Your task to perform on an android device: clear history in the chrome app Image 0: 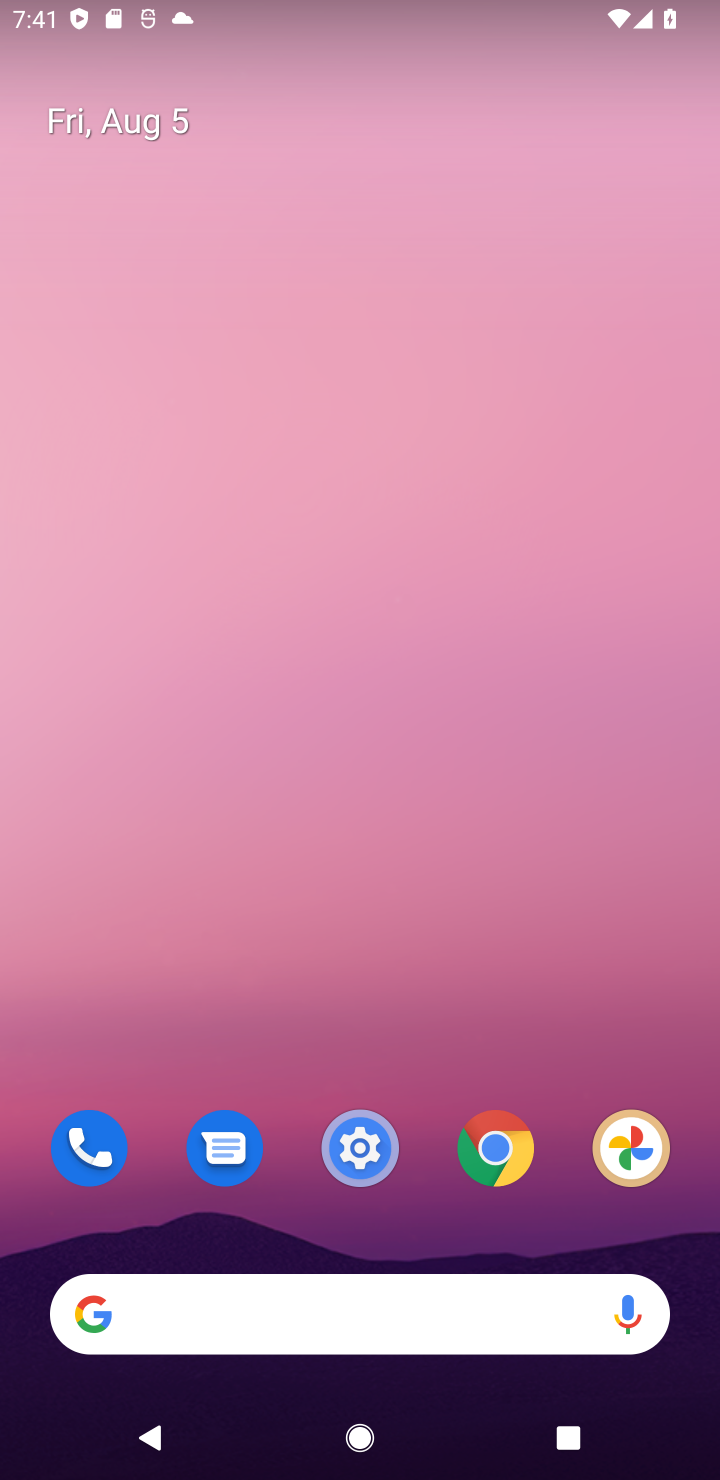
Step 0: click (534, 1146)
Your task to perform on an android device: clear history in the chrome app Image 1: 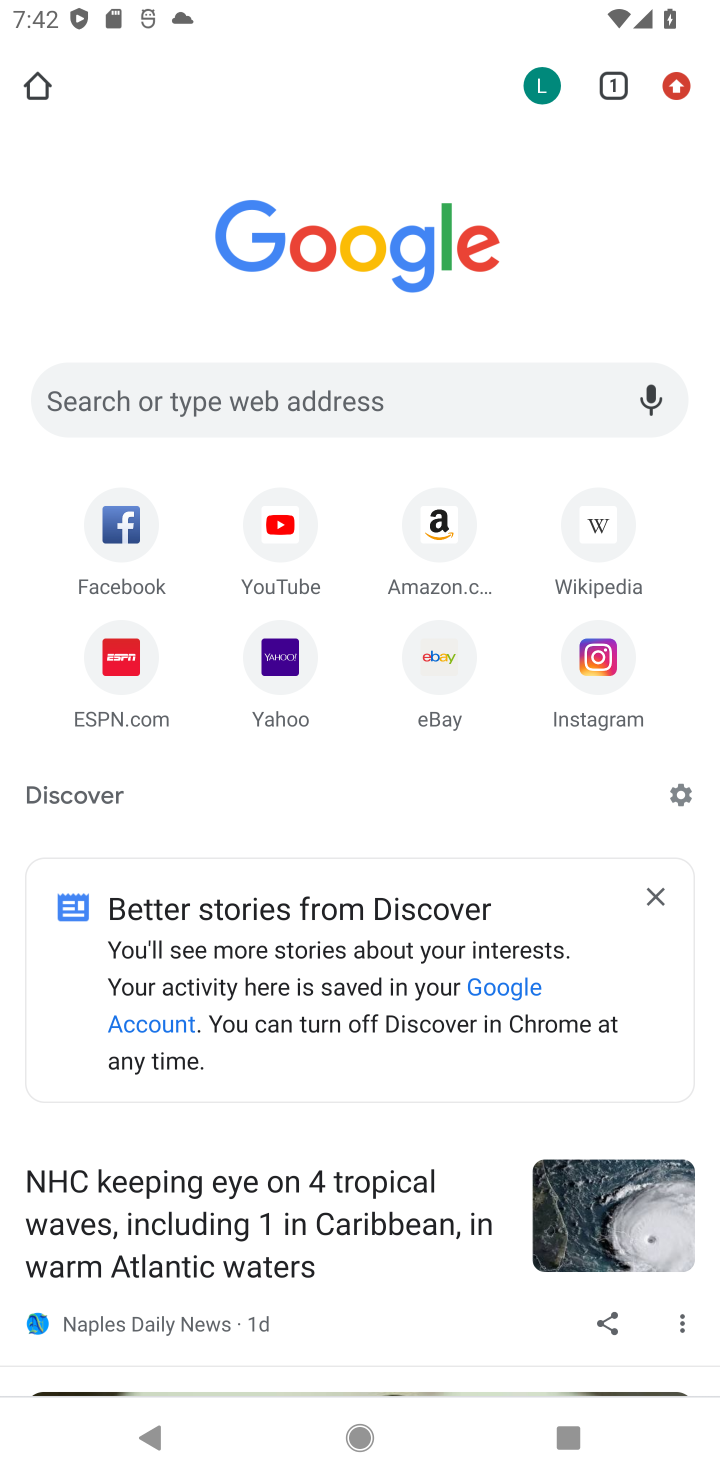
Step 1: click (684, 90)
Your task to perform on an android device: clear history in the chrome app Image 2: 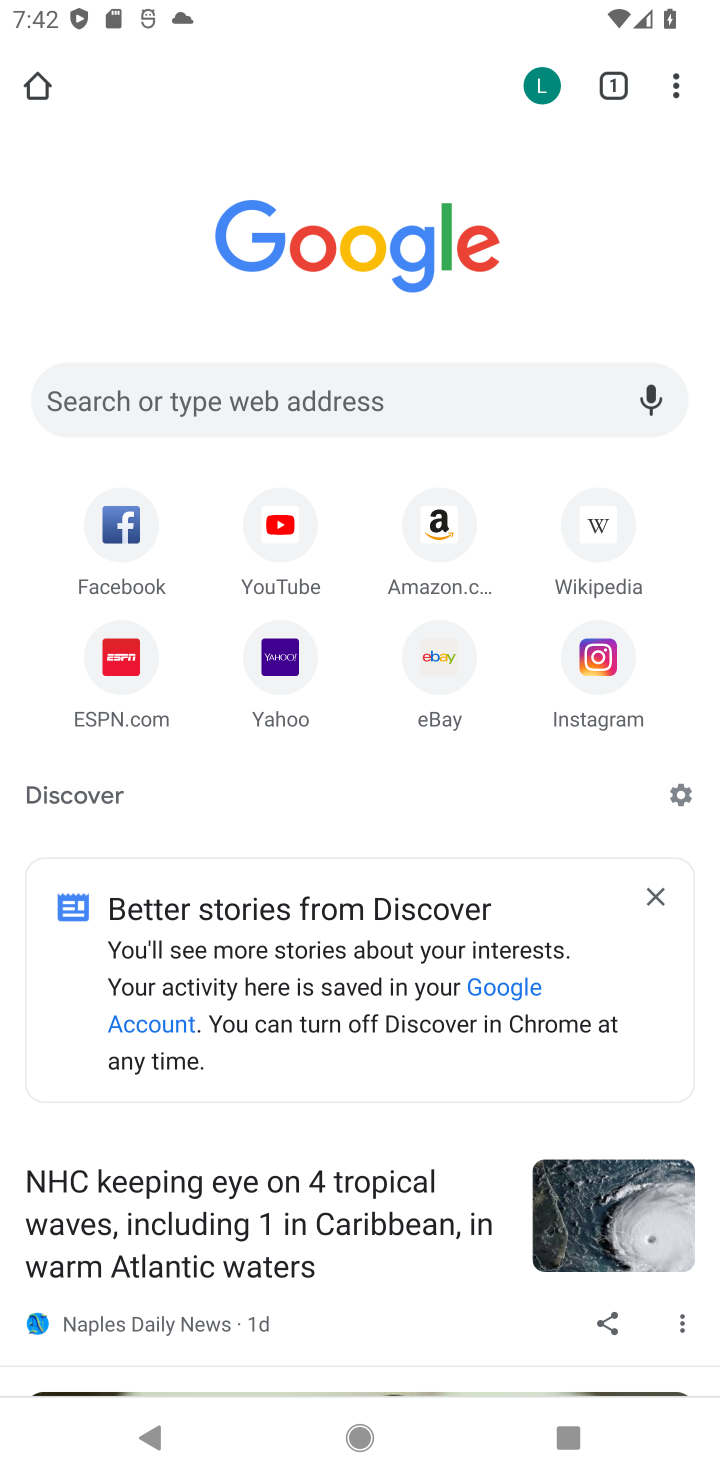
Step 2: click (674, 90)
Your task to perform on an android device: clear history in the chrome app Image 3: 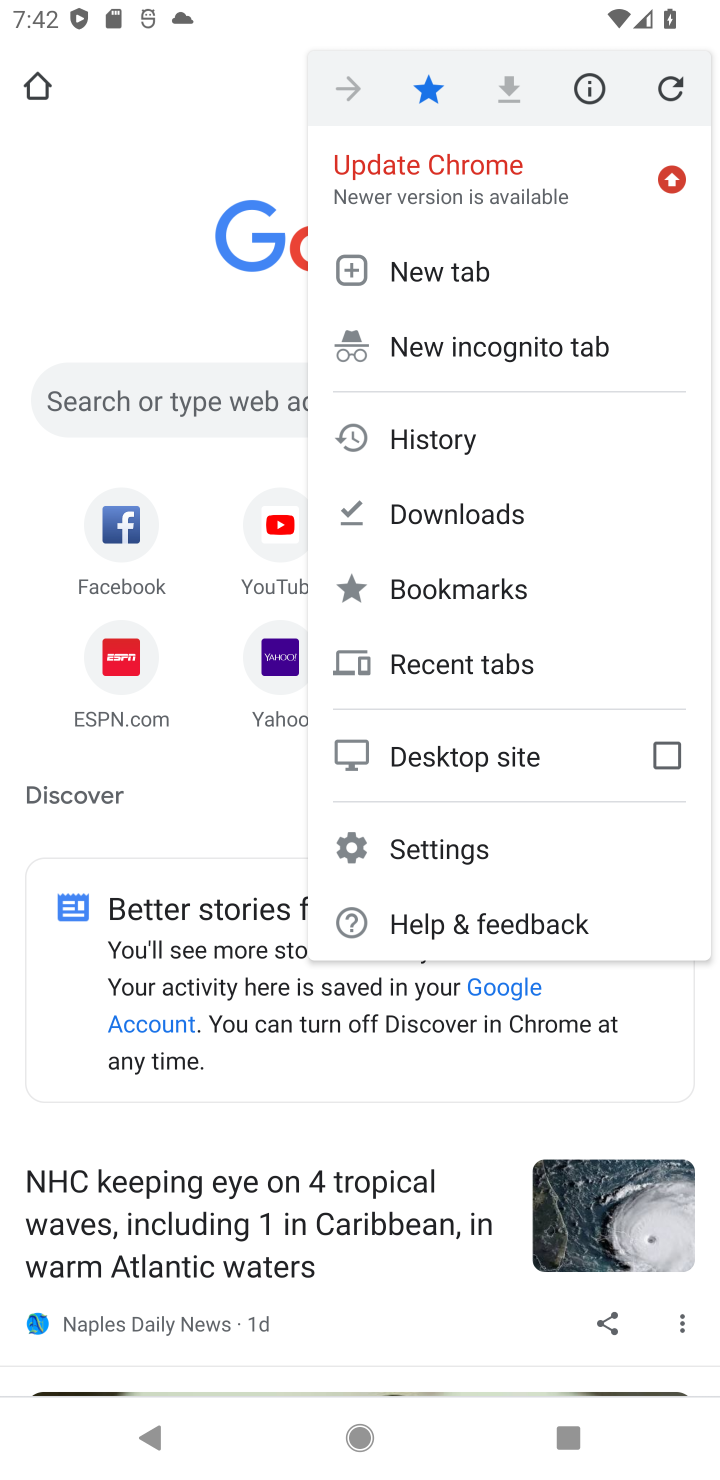
Step 3: click (545, 834)
Your task to perform on an android device: clear history in the chrome app Image 4: 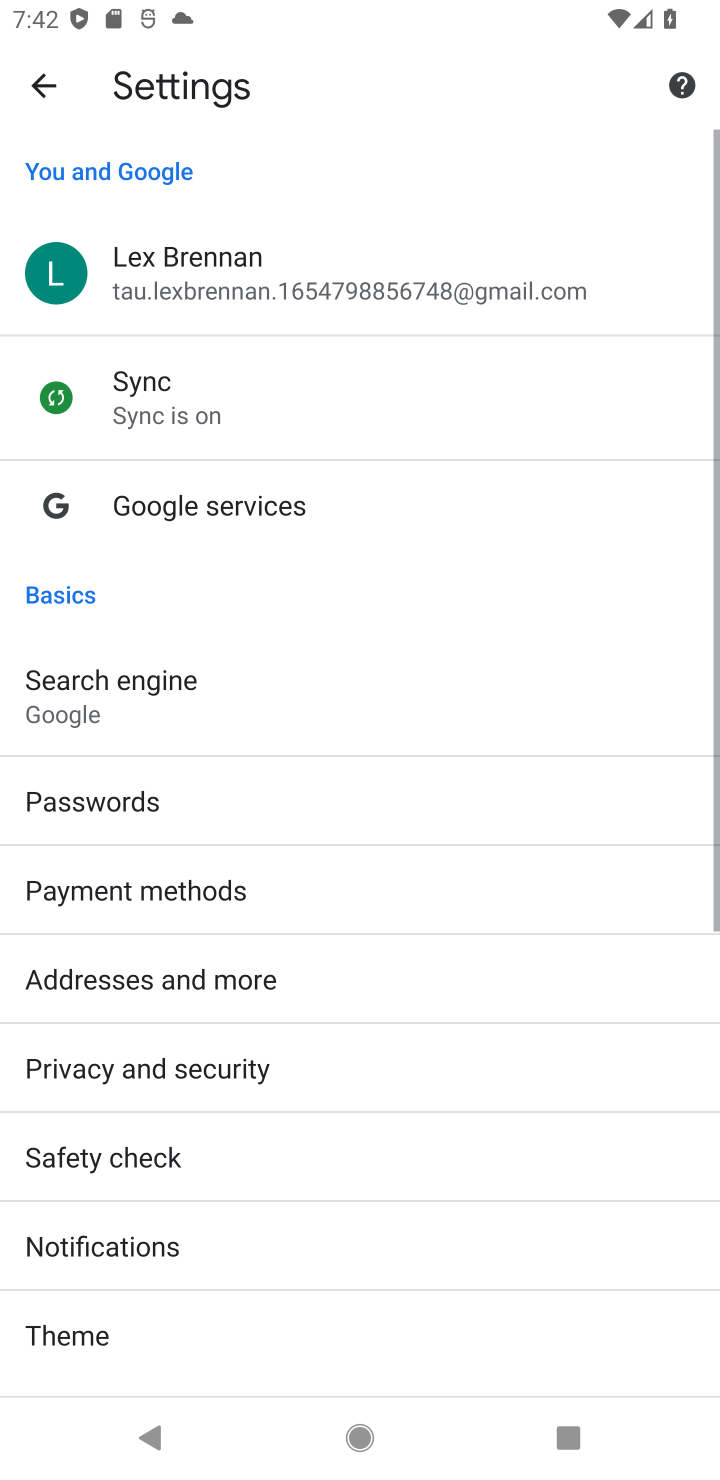
Step 4: task complete